Your task to perform on an android device: Search for pizza restaurants on Maps Image 0: 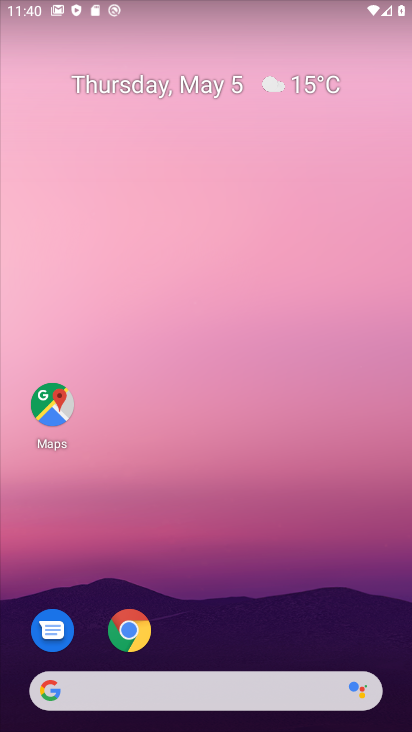
Step 0: click (47, 396)
Your task to perform on an android device: Search for pizza restaurants on Maps Image 1: 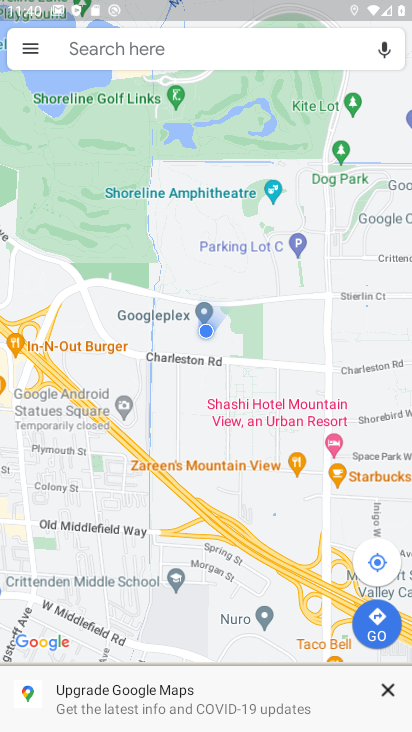
Step 1: click (114, 55)
Your task to perform on an android device: Search for pizza restaurants on Maps Image 2: 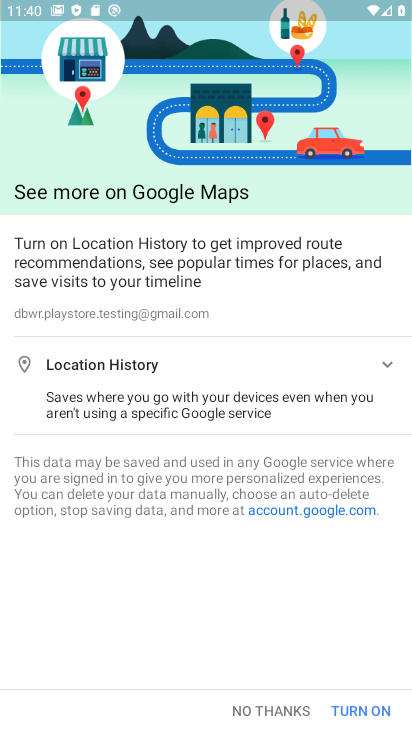
Step 2: click (299, 701)
Your task to perform on an android device: Search for pizza restaurants on Maps Image 3: 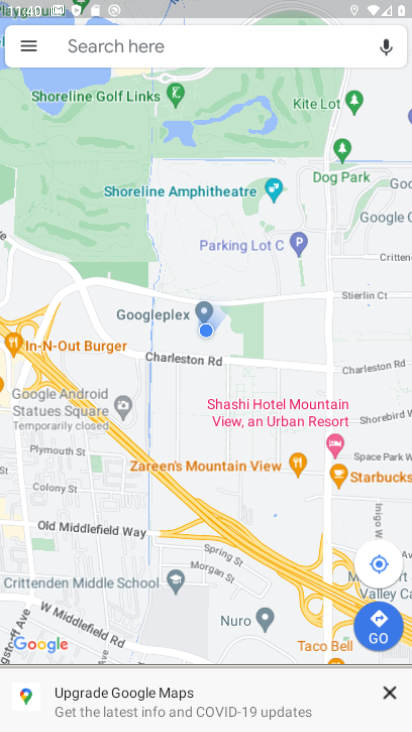
Step 3: click (299, 701)
Your task to perform on an android device: Search for pizza restaurants on Maps Image 4: 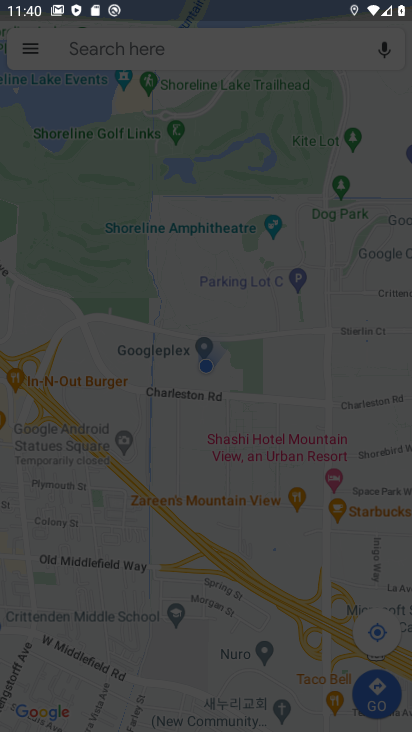
Step 4: click (134, 49)
Your task to perform on an android device: Search for pizza restaurants on Maps Image 5: 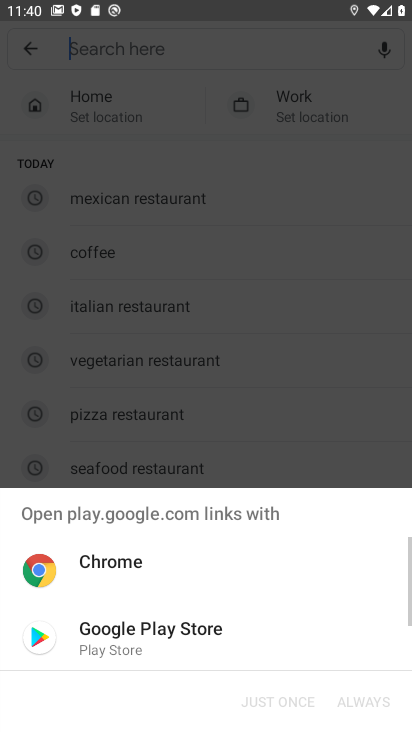
Step 5: click (134, 49)
Your task to perform on an android device: Search for pizza restaurants on Maps Image 6: 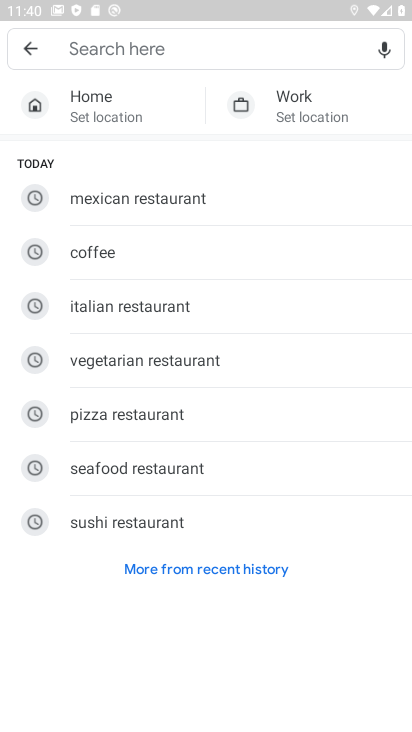
Step 6: type " pizza restaurants "
Your task to perform on an android device: Search for pizza restaurants on Maps Image 7: 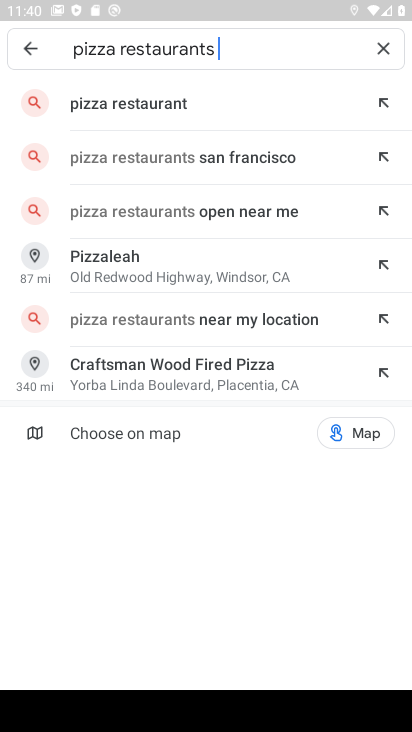
Step 7: click (115, 102)
Your task to perform on an android device: Search for pizza restaurants on Maps Image 8: 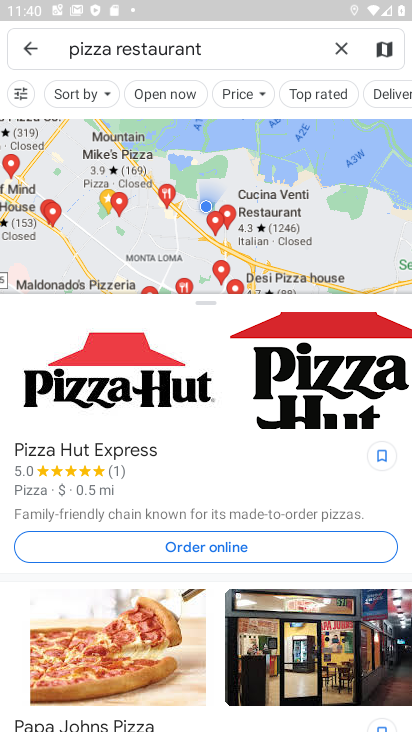
Step 8: task complete